Your task to perform on an android device: Open the calendar app, open the side menu, and click the "Day" option Image 0: 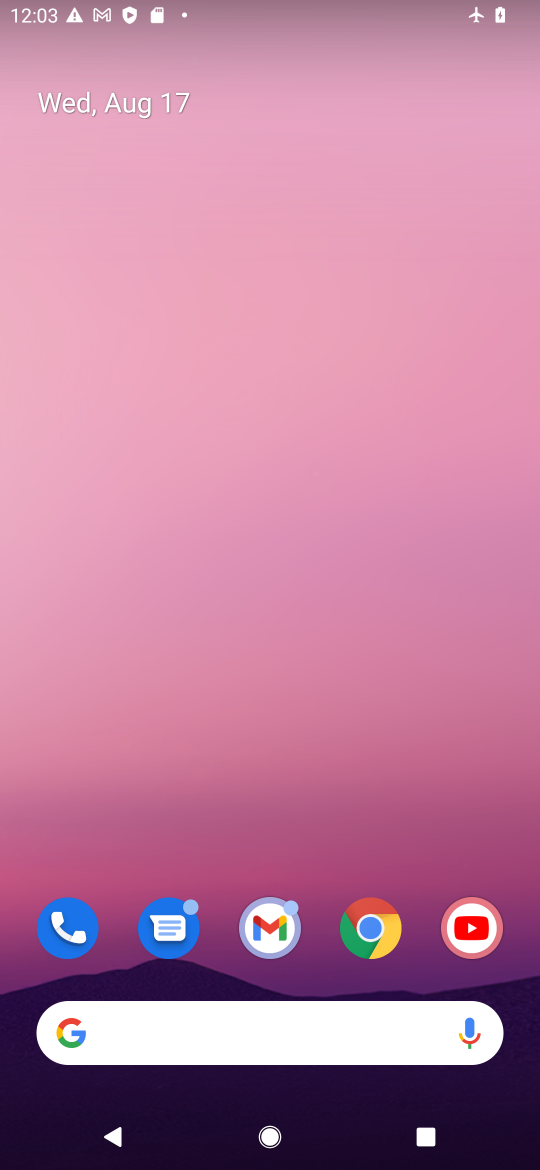
Step 0: drag from (268, 815) to (311, 399)
Your task to perform on an android device: Open the calendar app, open the side menu, and click the "Day" option Image 1: 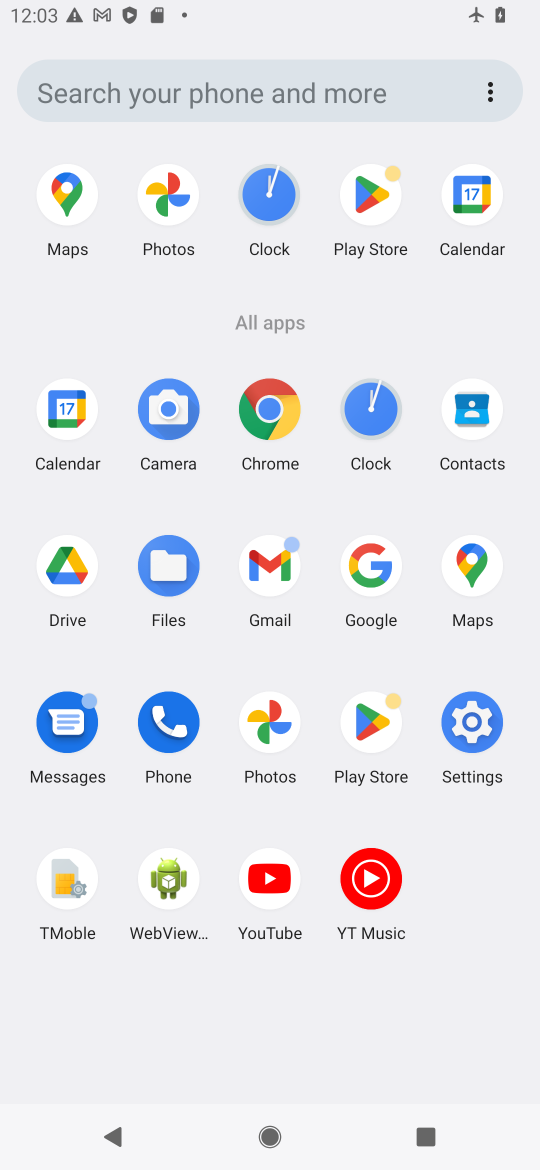
Step 1: click (483, 190)
Your task to perform on an android device: Open the calendar app, open the side menu, and click the "Day" option Image 2: 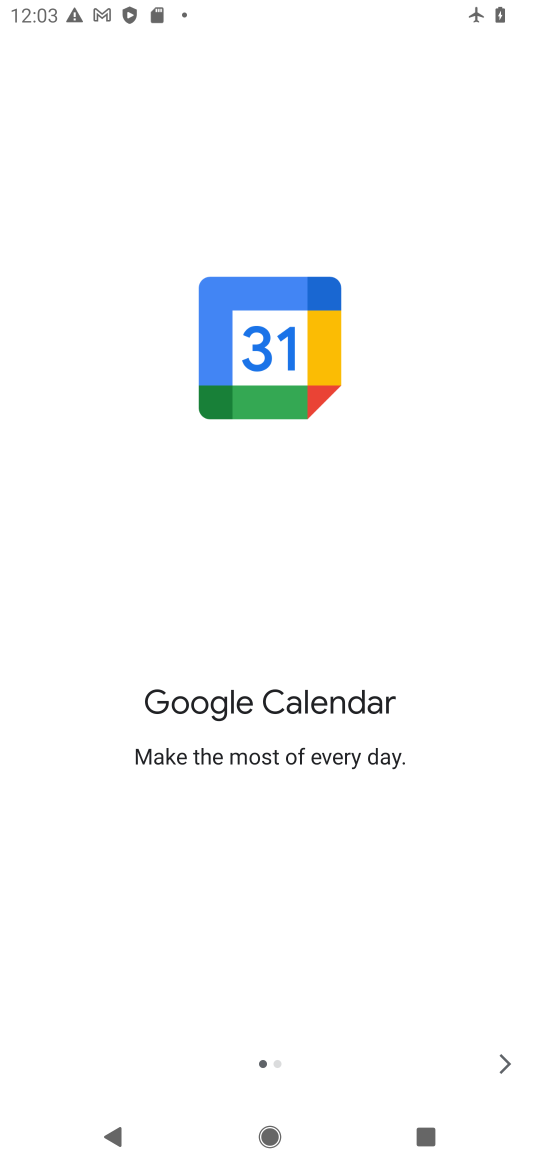
Step 2: click (503, 1049)
Your task to perform on an android device: Open the calendar app, open the side menu, and click the "Day" option Image 3: 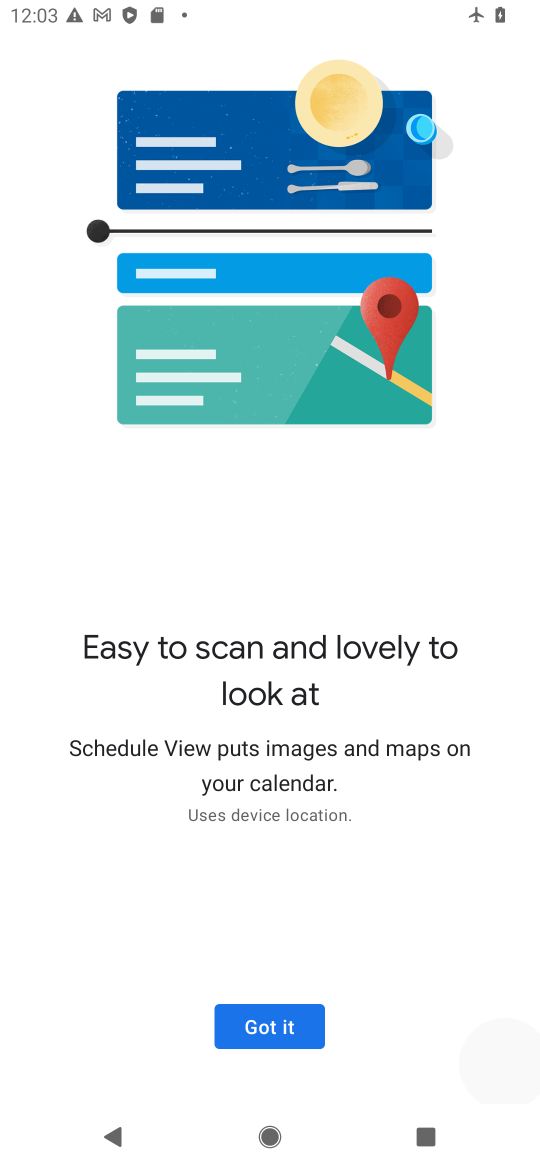
Step 3: click (503, 1049)
Your task to perform on an android device: Open the calendar app, open the side menu, and click the "Day" option Image 4: 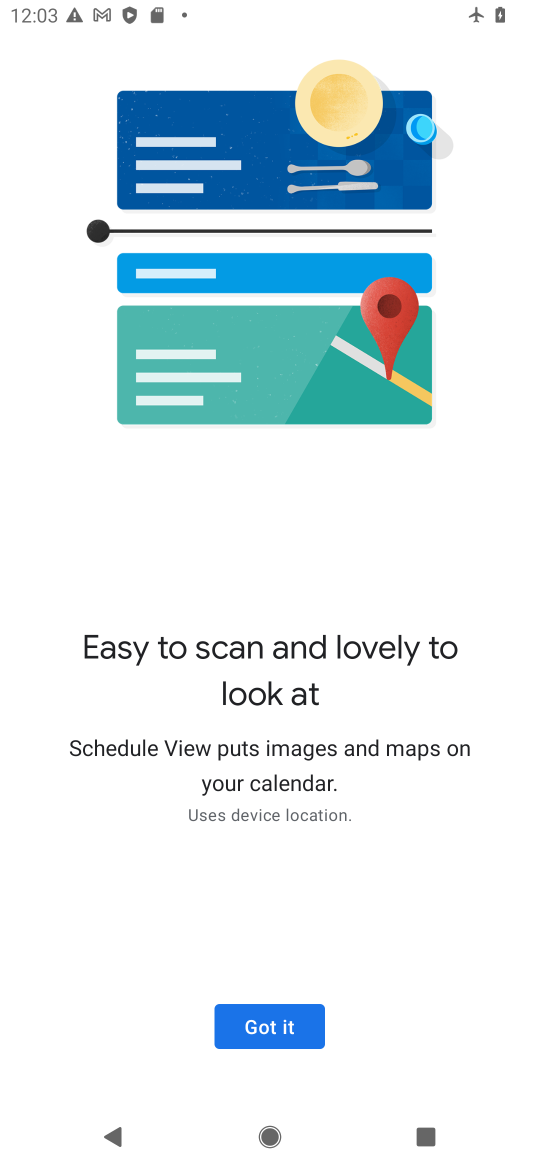
Step 4: click (307, 1016)
Your task to perform on an android device: Open the calendar app, open the side menu, and click the "Day" option Image 5: 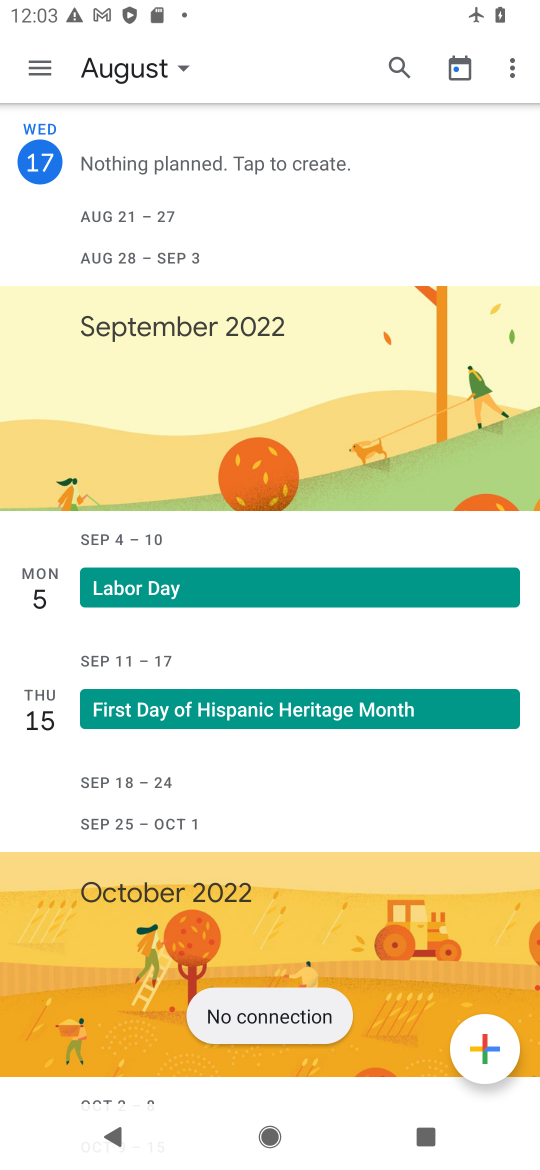
Step 5: click (45, 67)
Your task to perform on an android device: Open the calendar app, open the side menu, and click the "Day" option Image 6: 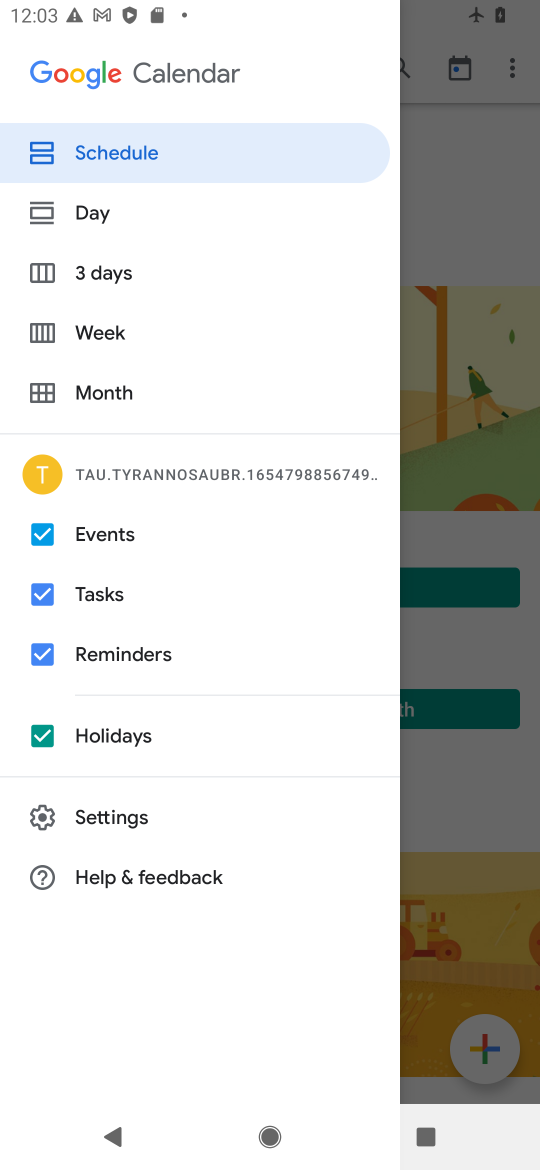
Step 6: click (66, 203)
Your task to perform on an android device: Open the calendar app, open the side menu, and click the "Day" option Image 7: 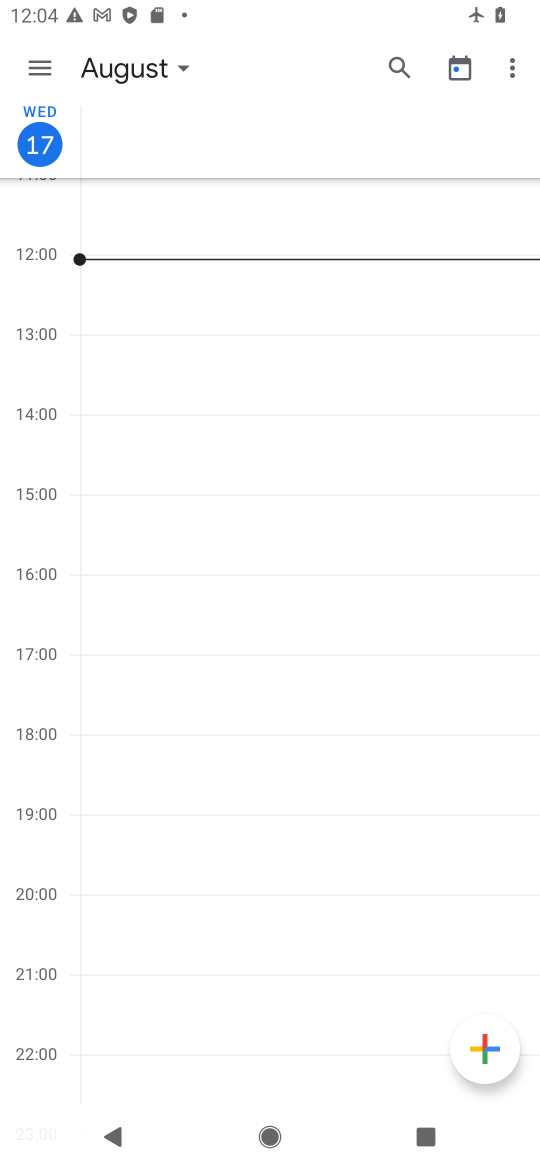
Step 7: click (47, 65)
Your task to perform on an android device: Open the calendar app, open the side menu, and click the "Day" option Image 8: 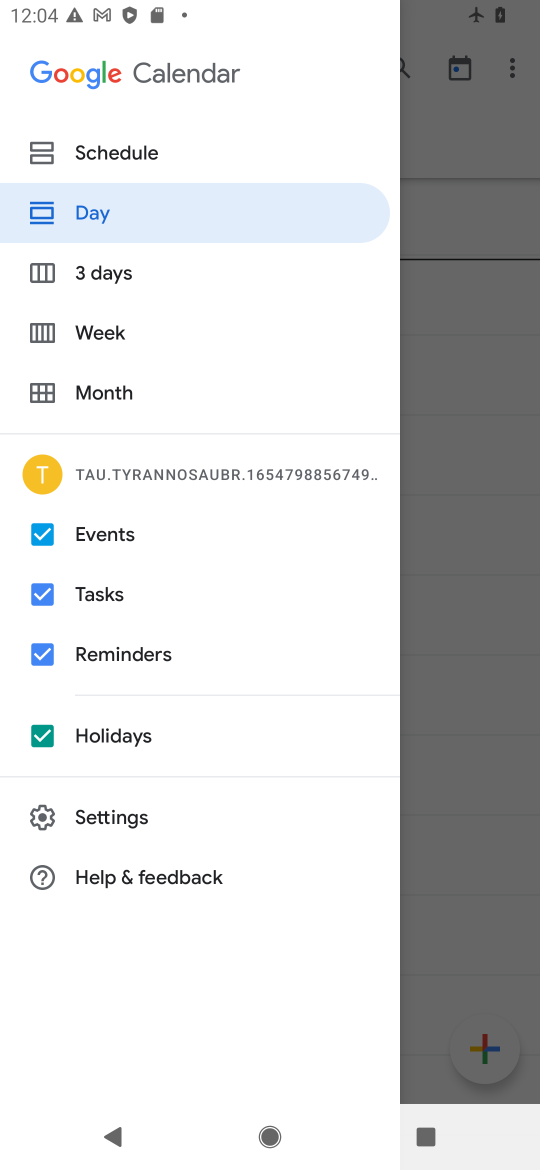
Step 8: task complete